Your task to perform on an android device: check google app version Image 0: 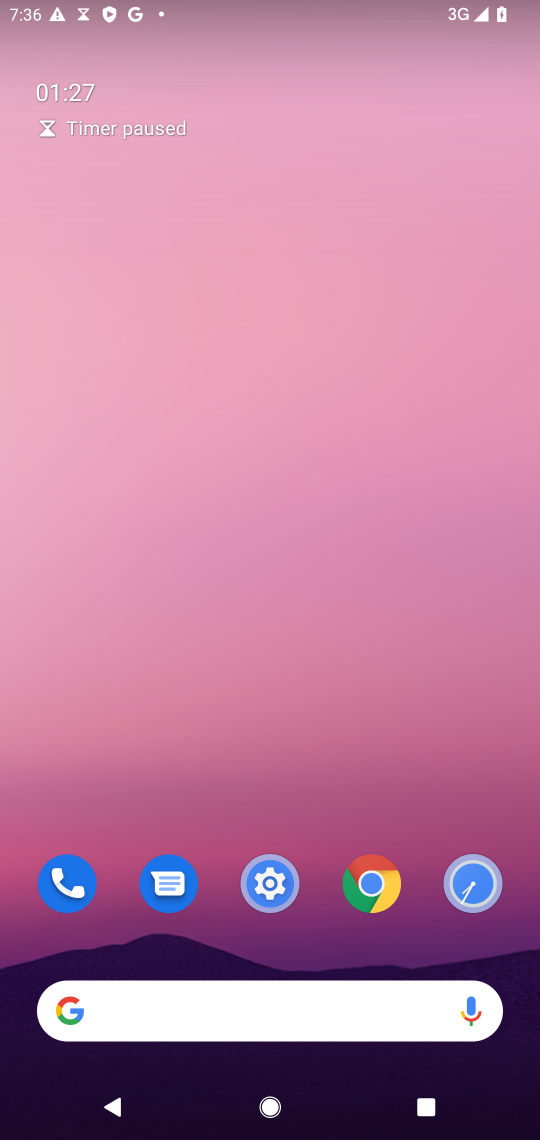
Step 0: drag from (166, 1016) to (336, 212)
Your task to perform on an android device: check google app version Image 1: 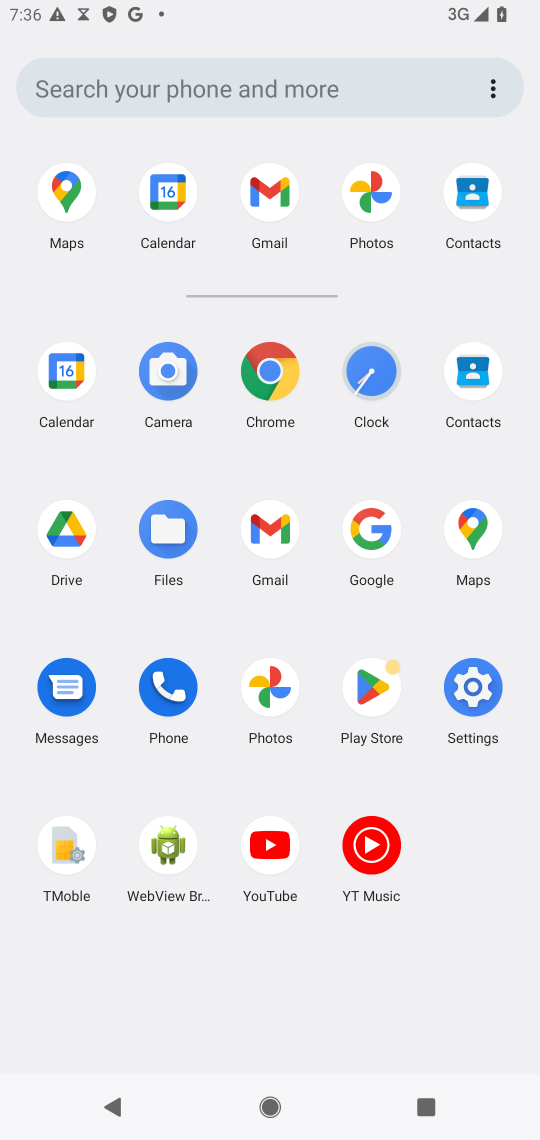
Step 1: click (370, 526)
Your task to perform on an android device: check google app version Image 2: 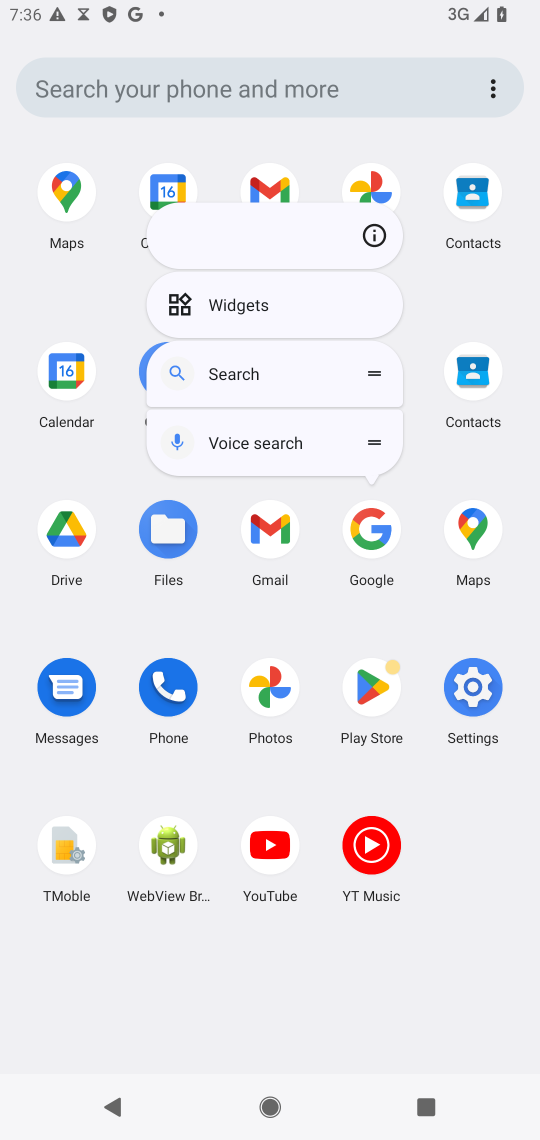
Step 2: click (374, 239)
Your task to perform on an android device: check google app version Image 3: 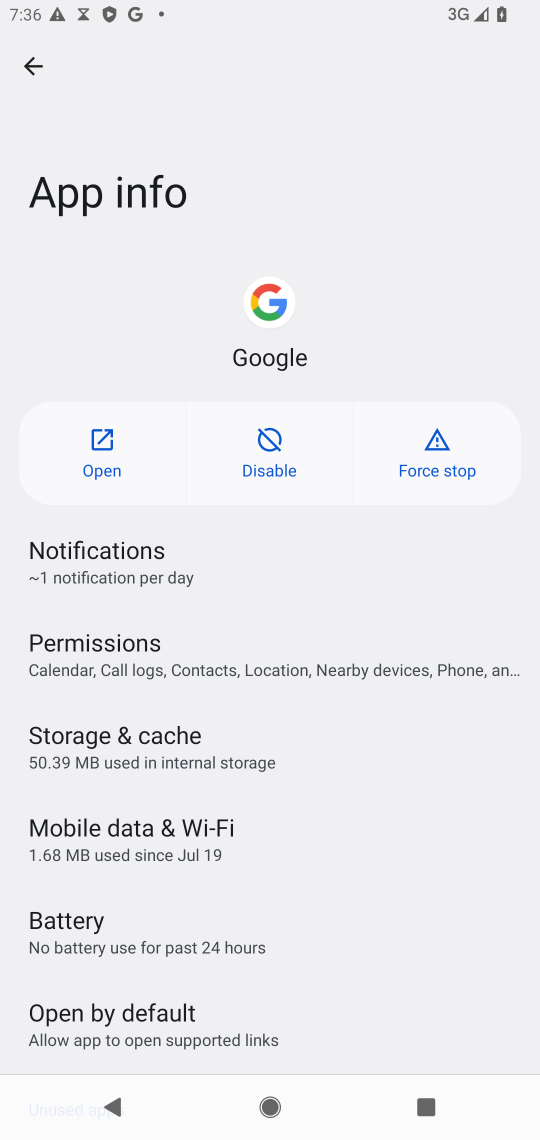
Step 3: task complete